Your task to perform on an android device: see creations saved in the google photos Image 0: 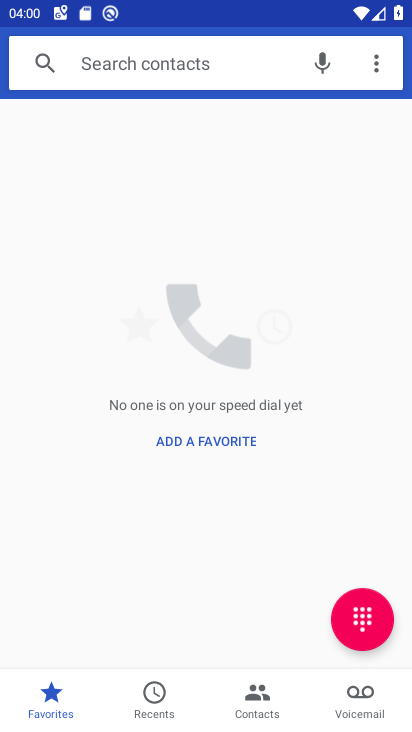
Step 0: press home button
Your task to perform on an android device: see creations saved in the google photos Image 1: 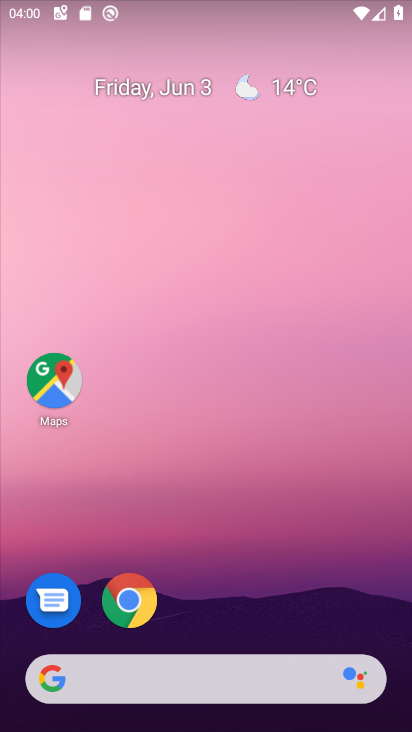
Step 1: drag from (265, 586) to (268, 24)
Your task to perform on an android device: see creations saved in the google photos Image 2: 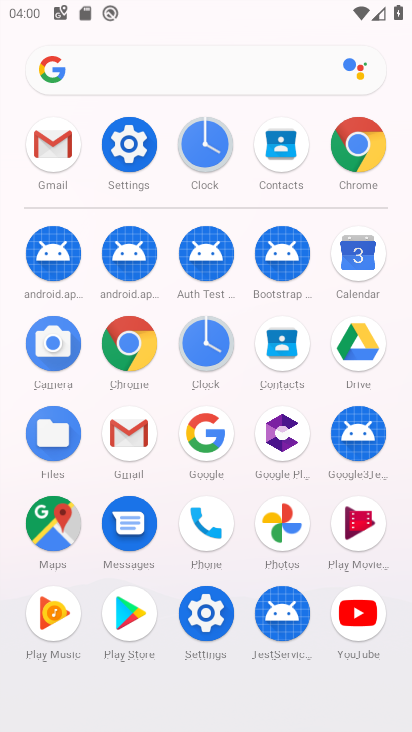
Step 2: click (277, 526)
Your task to perform on an android device: see creations saved in the google photos Image 3: 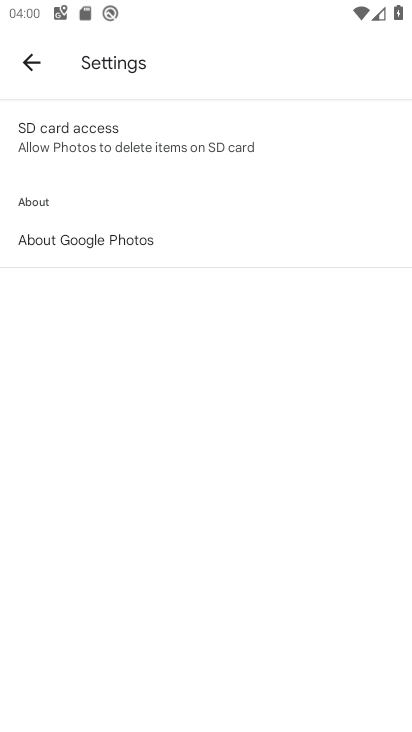
Step 3: click (37, 56)
Your task to perform on an android device: see creations saved in the google photos Image 4: 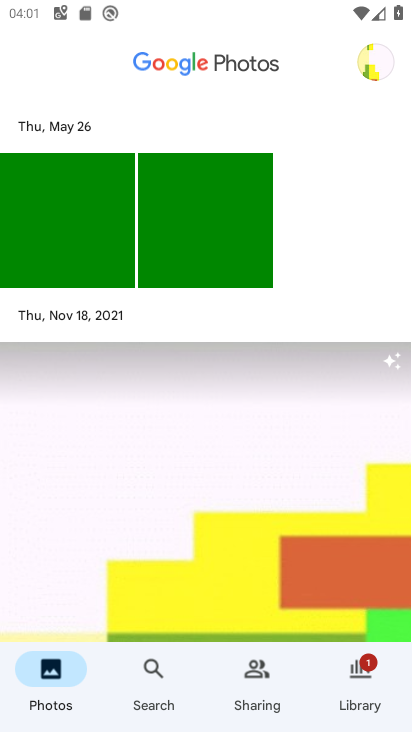
Step 4: click (379, 675)
Your task to perform on an android device: see creations saved in the google photos Image 5: 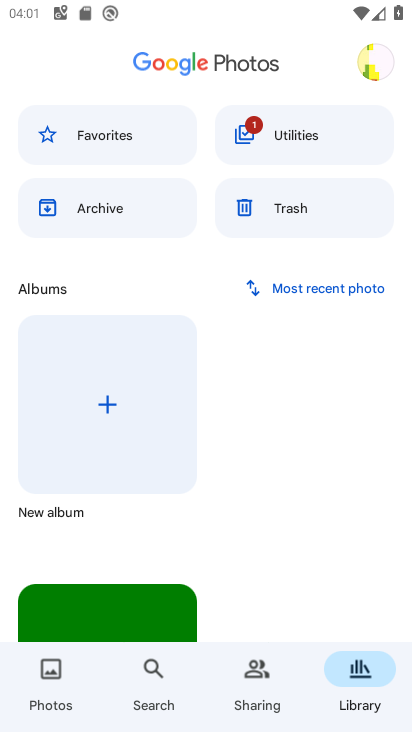
Step 5: task complete